Your task to perform on an android device: Open notification settings Image 0: 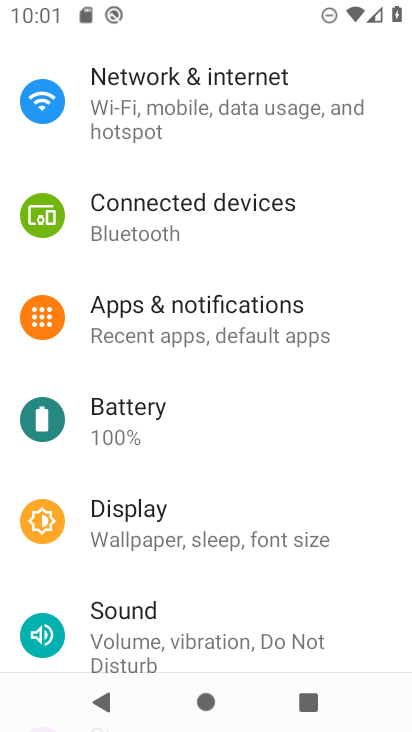
Step 0: click (261, 309)
Your task to perform on an android device: Open notification settings Image 1: 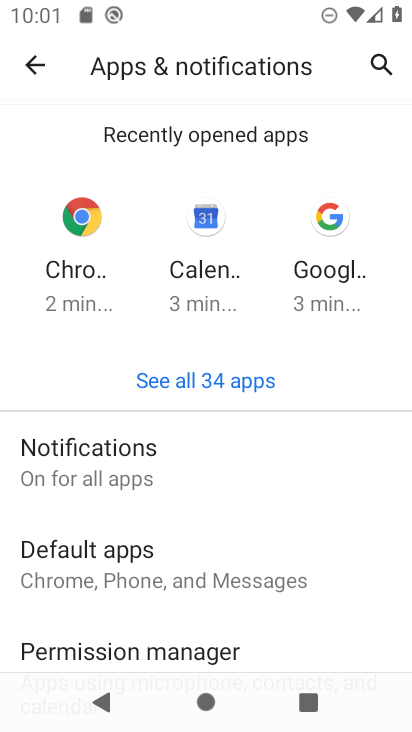
Step 1: click (107, 460)
Your task to perform on an android device: Open notification settings Image 2: 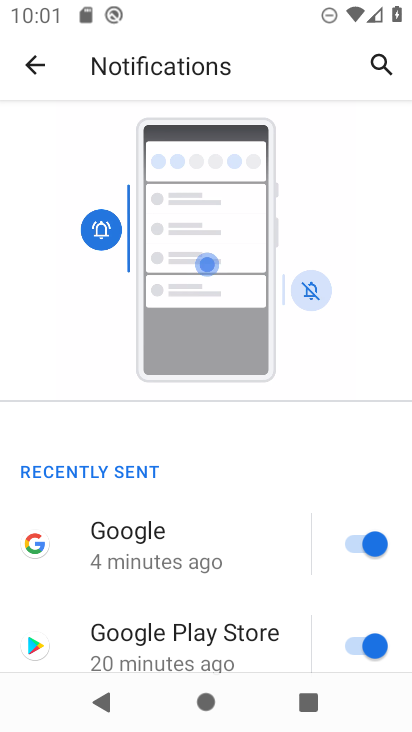
Step 2: task complete